Your task to perform on an android device: turn off location Image 0: 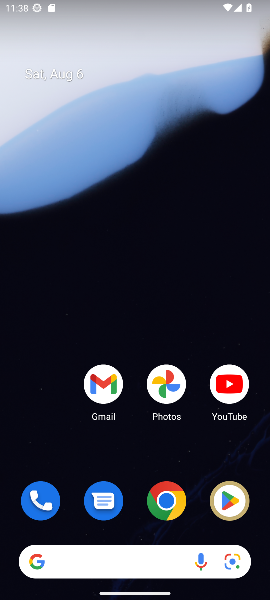
Step 0: drag from (127, 487) to (142, 19)
Your task to perform on an android device: turn off location Image 1: 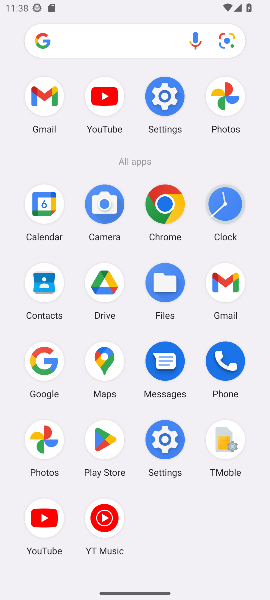
Step 1: click (157, 447)
Your task to perform on an android device: turn off location Image 2: 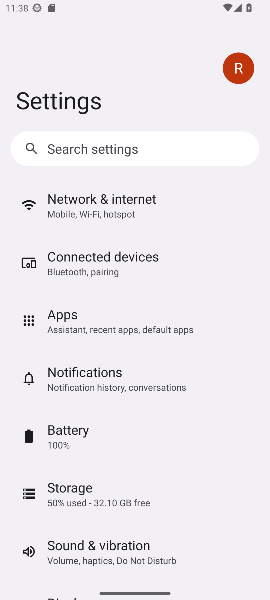
Step 2: drag from (107, 445) to (106, 291)
Your task to perform on an android device: turn off location Image 3: 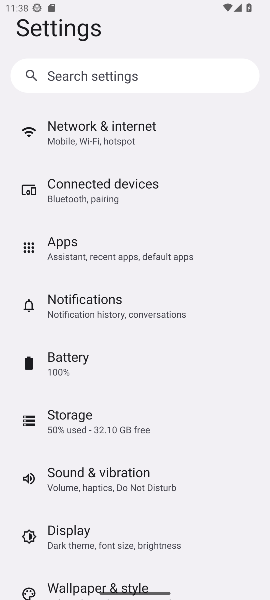
Step 3: drag from (102, 519) to (93, 271)
Your task to perform on an android device: turn off location Image 4: 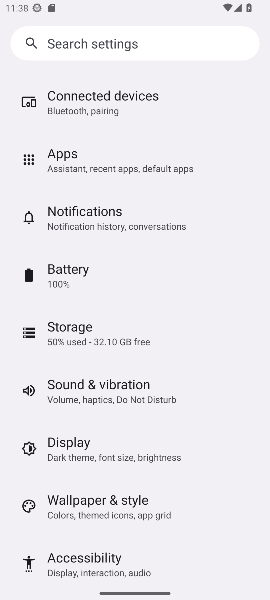
Step 4: drag from (108, 418) to (108, 243)
Your task to perform on an android device: turn off location Image 5: 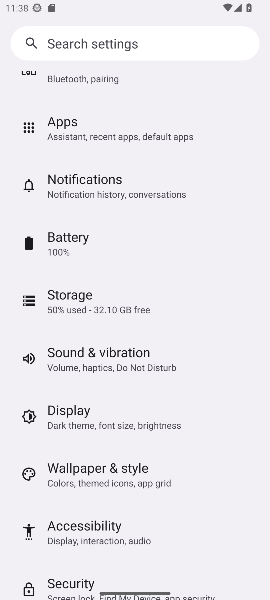
Step 5: drag from (108, 508) to (108, 77)
Your task to perform on an android device: turn off location Image 6: 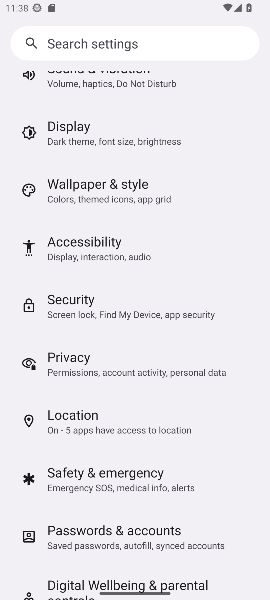
Step 6: drag from (117, 434) to (117, 406)
Your task to perform on an android device: turn off location Image 7: 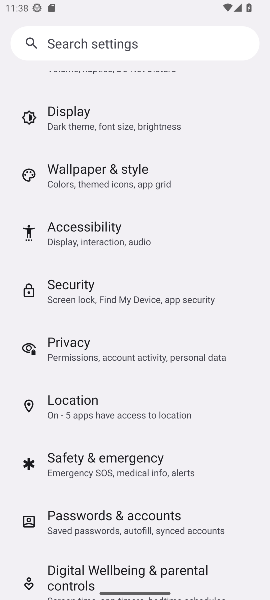
Step 7: click (93, 414)
Your task to perform on an android device: turn off location Image 8: 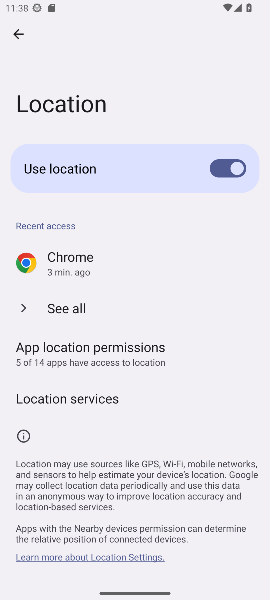
Step 8: click (209, 173)
Your task to perform on an android device: turn off location Image 9: 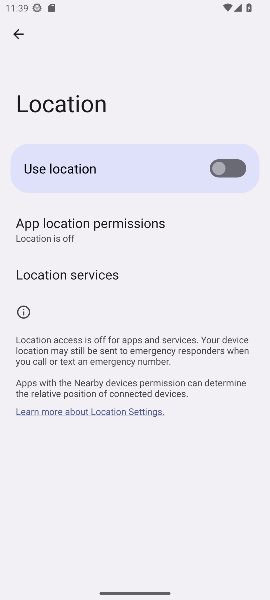
Step 9: task complete